Your task to perform on an android device: delete browsing data in the chrome app Image 0: 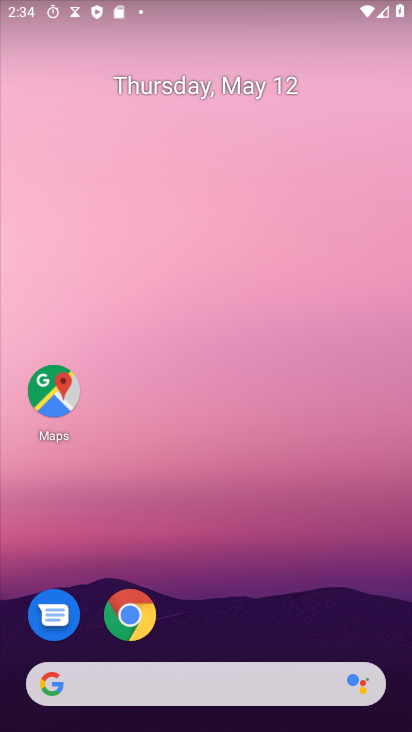
Step 0: click (136, 611)
Your task to perform on an android device: delete browsing data in the chrome app Image 1: 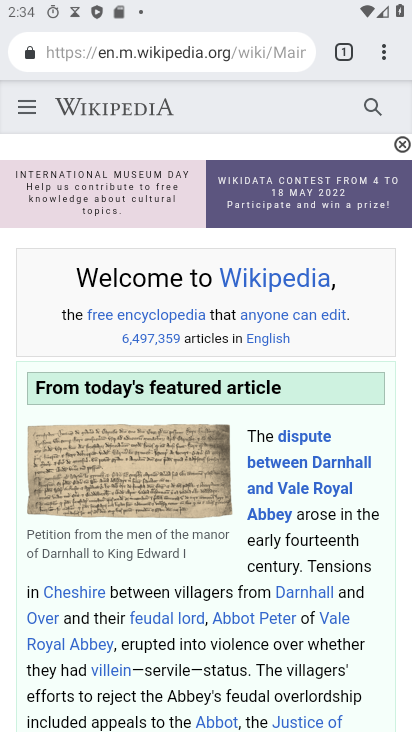
Step 1: click (391, 48)
Your task to perform on an android device: delete browsing data in the chrome app Image 2: 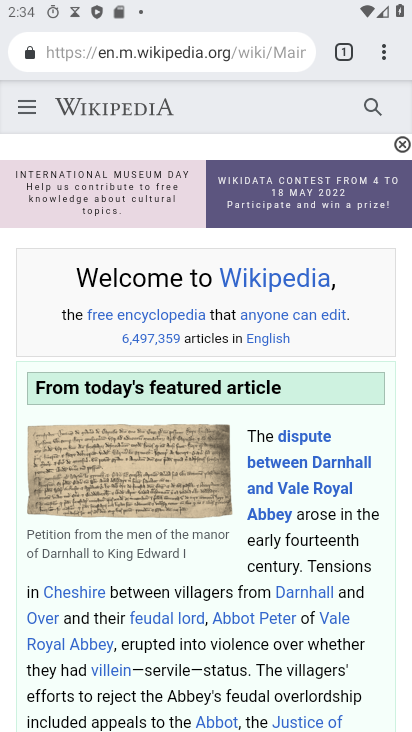
Step 2: click (379, 53)
Your task to perform on an android device: delete browsing data in the chrome app Image 3: 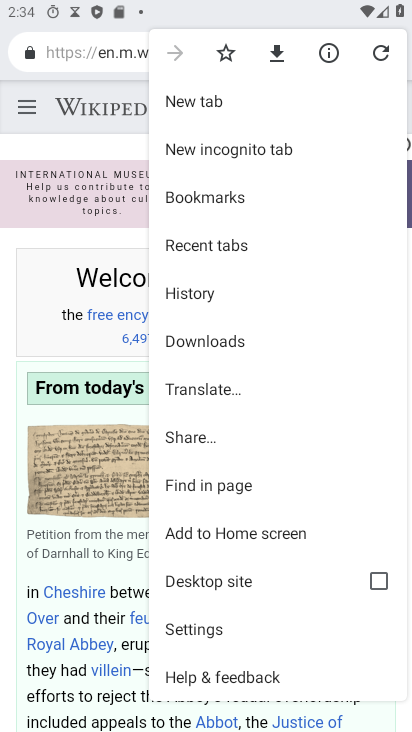
Step 3: click (194, 296)
Your task to perform on an android device: delete browsing data in the chrome app Image 4: 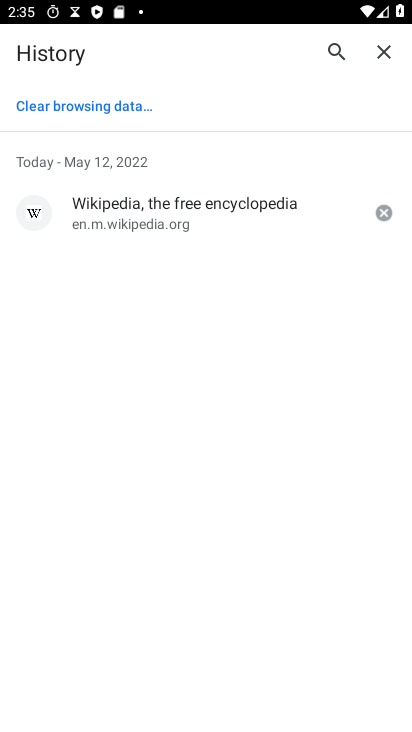
Step 4: click (149, 105)
Your task to perform on an android device: delete browsing data in the chrome app Image 5: 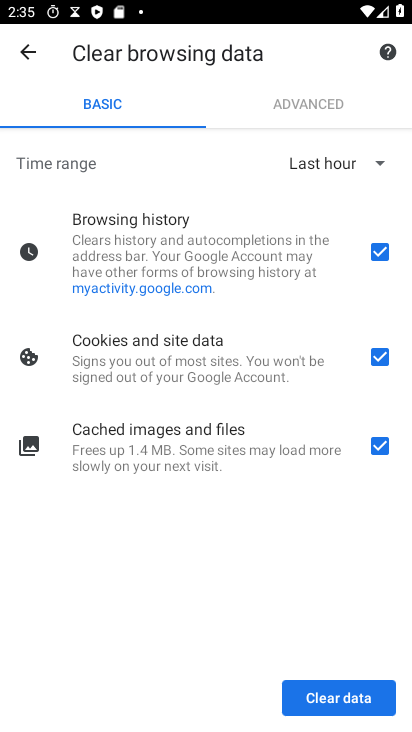
Step 5: click (320, 709)
Your task to perform on an android device: delete browsing data in the chrome app Image 6: 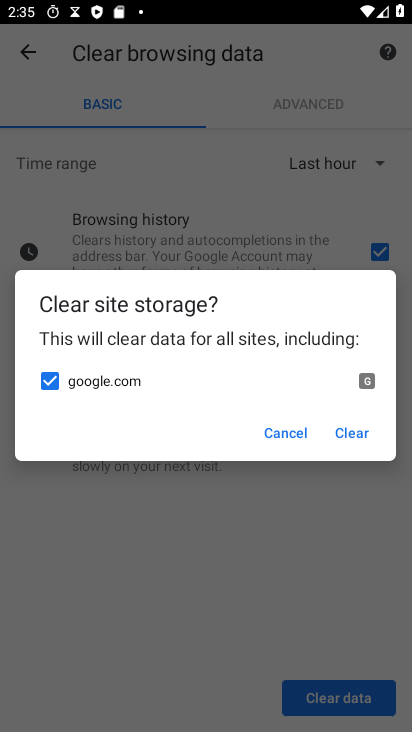
Step 6: click (358, 425)
Your task to perform on an android device: delete browsing data in the chrome app Image 7: 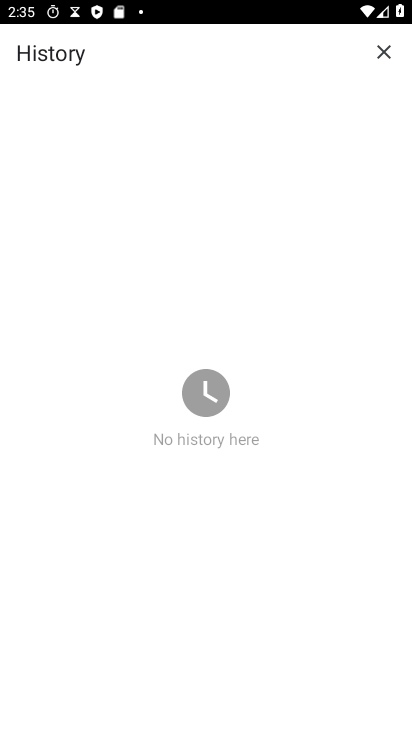
Step 7: task complete